Your task to perform on an android device: turn off wifi Image 0: 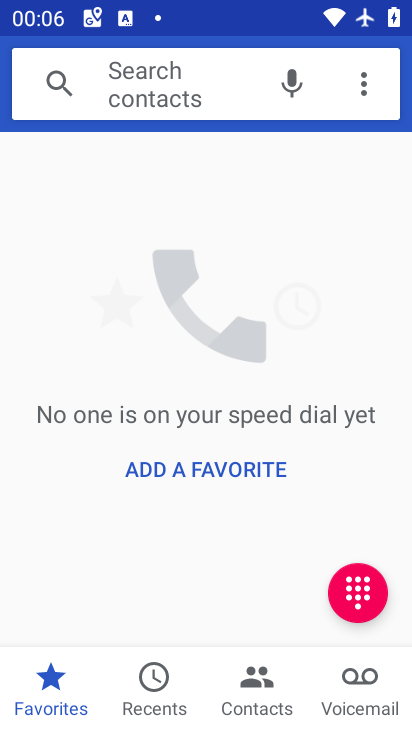
Step 0: press home button
Your task to perform on an android device: turn off wifi Image 1: 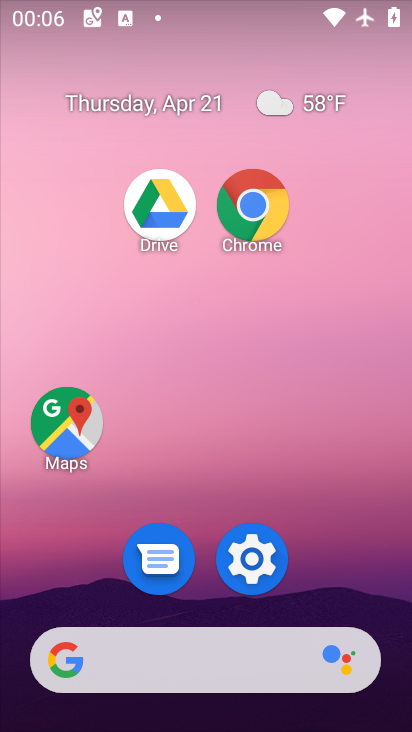
Step 1: click (235, 551)
Your task to perform on an android device: turn off wifi Image 2: 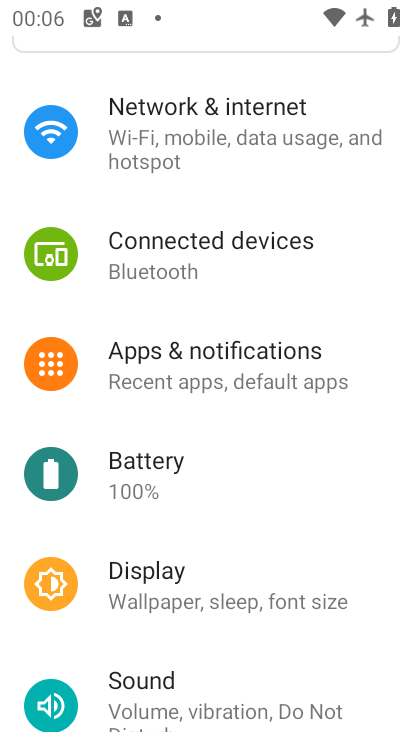
Step 2: click (269, 127)
Your task to perform on an android device: turn off wifi Image 3: 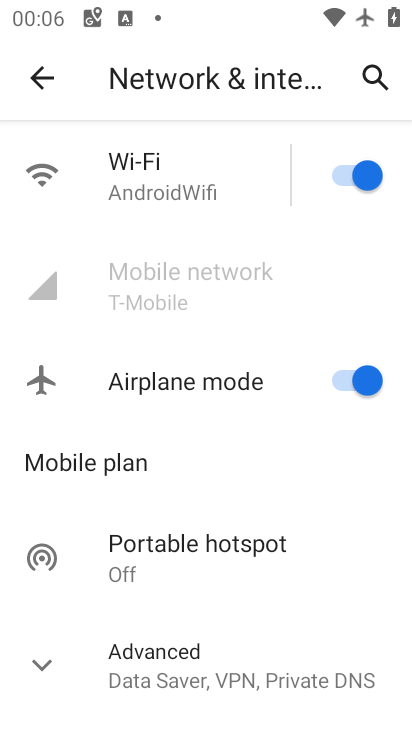
Step 3: click (350, 174)
Your task to perform on an android device: turn off wifi Image 4: 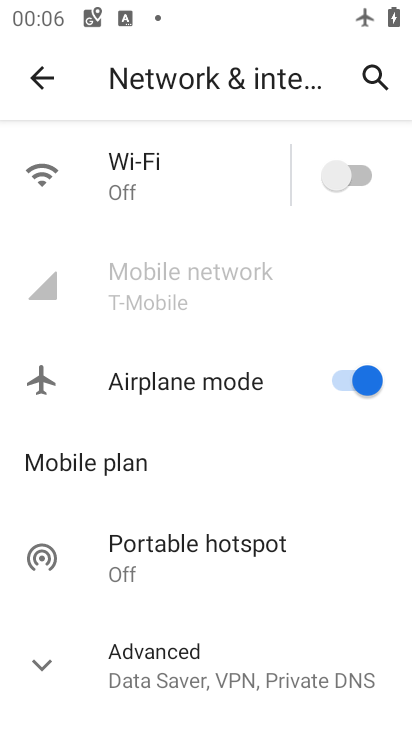
Step 4: task complete